Your task to perform on an android device: Go to Yahoo.com Image 0: 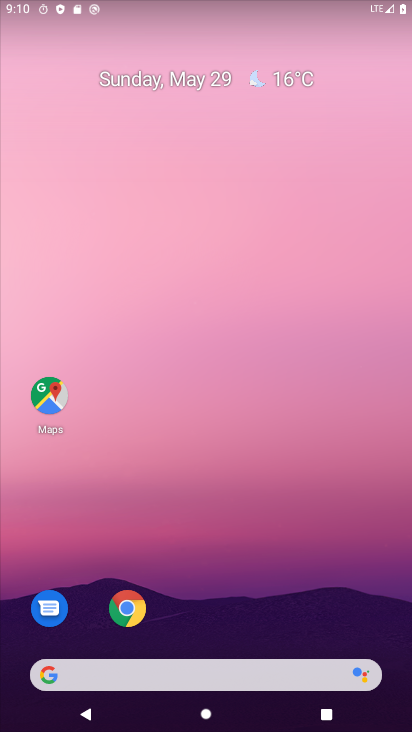
Step 0: click (133, 607)
Your task to perform on an android device: Go to Yahoo.com Image 1: 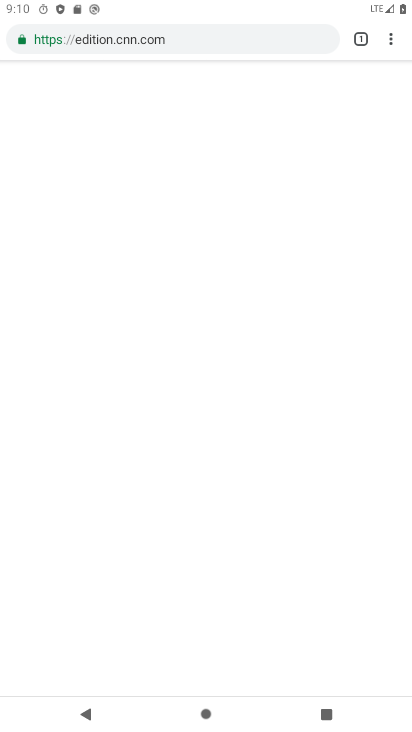
Step 1: press back button
Your task to perform on an android device: Go to Yahoo.com Image 2: 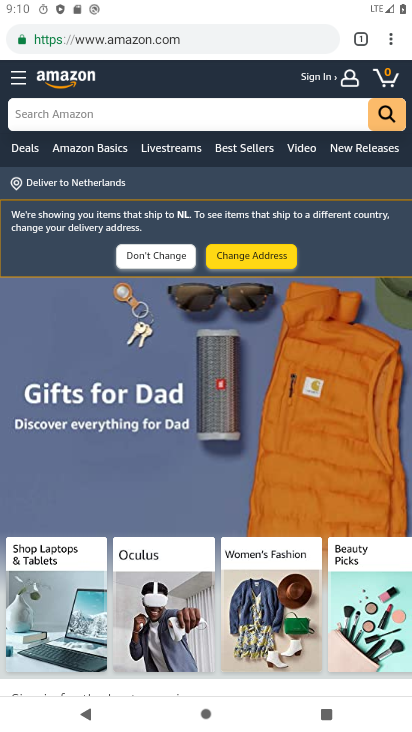
Step 2: press back button
Your task to perform on an android device: Go to Yahoo.com Image 3: 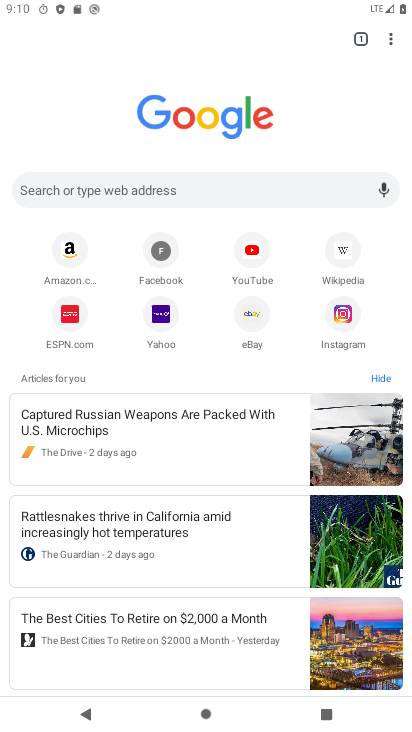
Step 3: click (171, 323)
Your task to perform on an android device: Go to Yahoo.com Image 4: 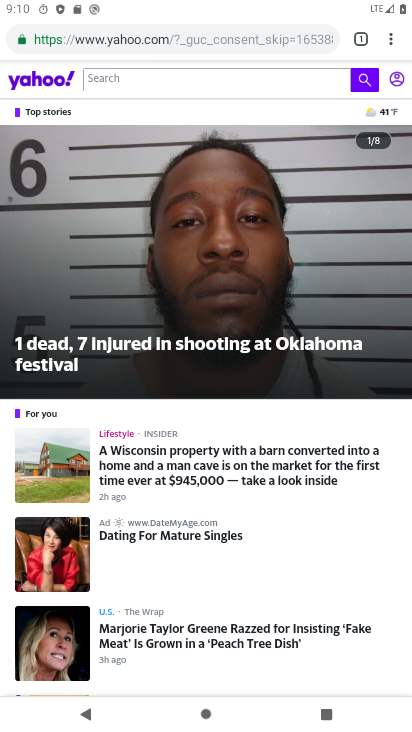
Step 4: task complete